Your task to perform on an android device: Go to network settings Image 0: 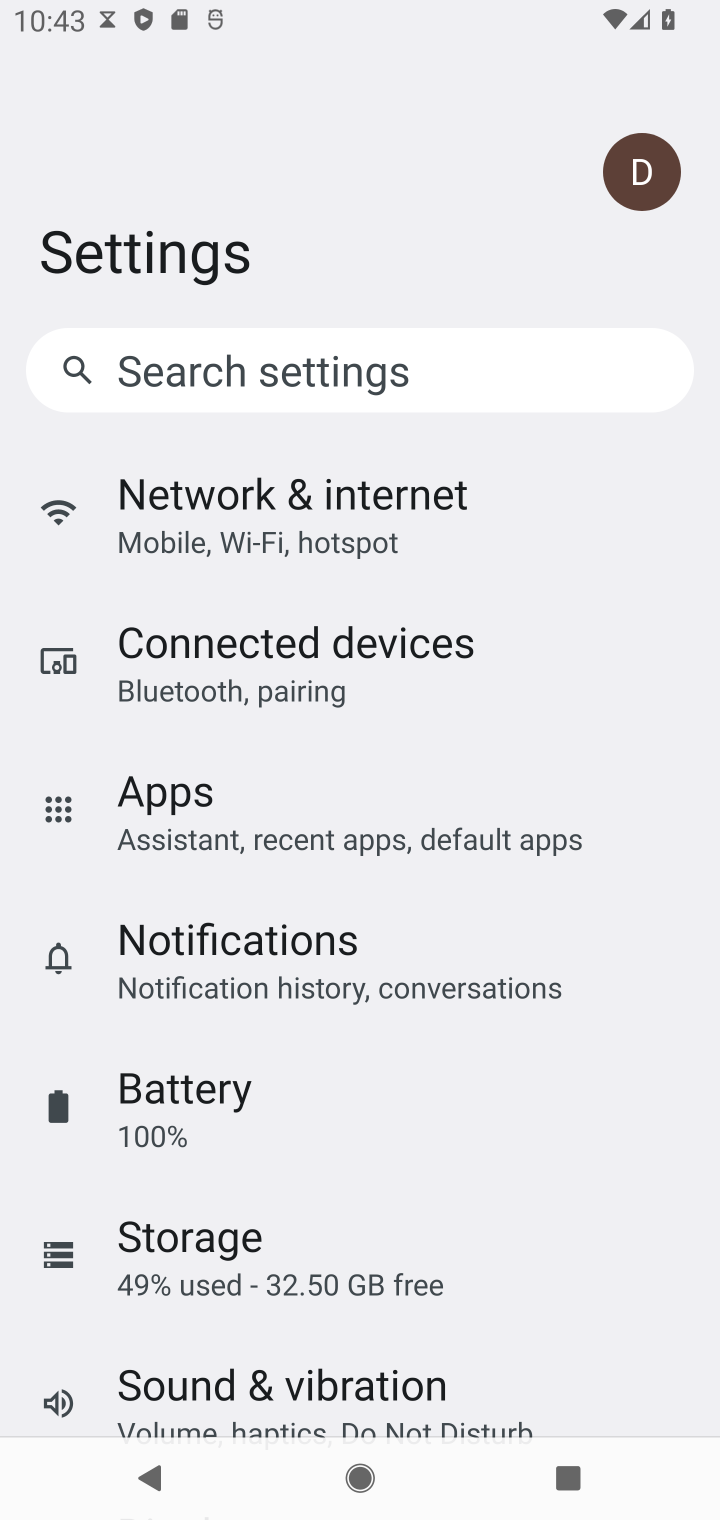
Step 0: click (424, 506)
Your task to perform on an android device: Go to network settings Image 1: 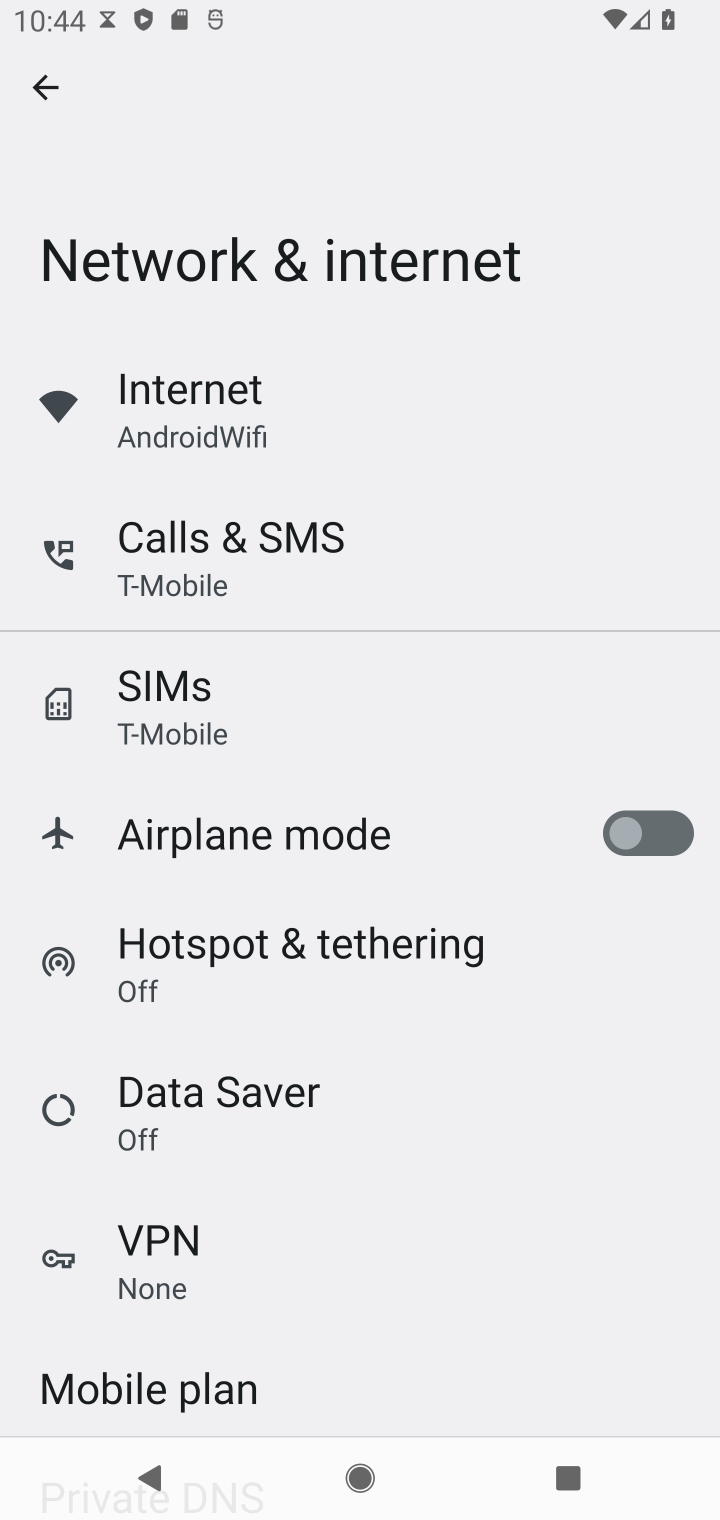
Step 1: task complete